Your task to perform on an android device: Go to accessibility settings Image 0: 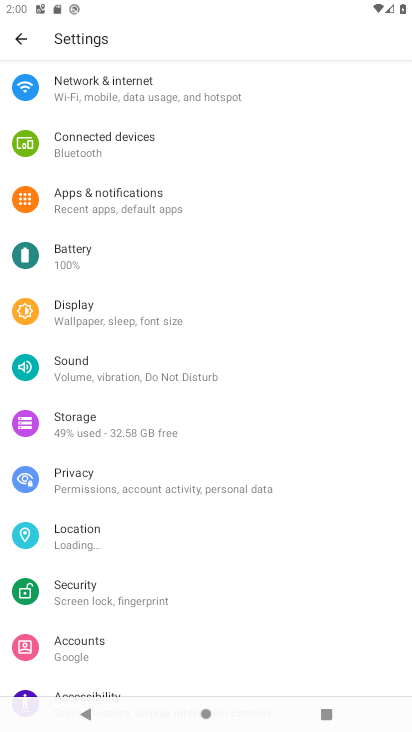
Step 0: press home button
Your task to perform on an android device: Go to accessibility settings Image 1: 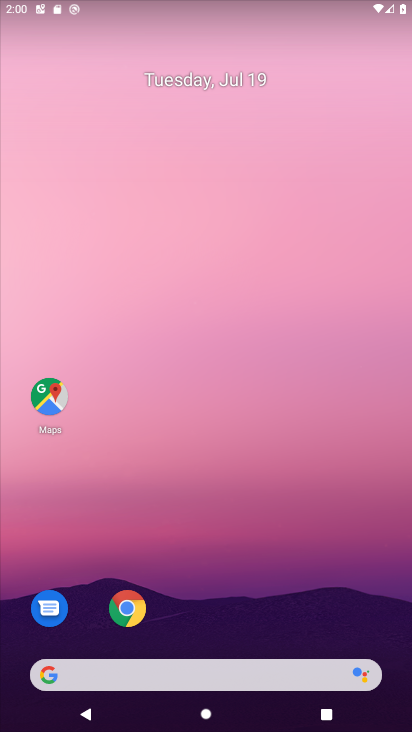
Step 1: drag from (186, 544) to (254, 98)
Your task to perform on an android device: Go to accessibility settings Image 2: 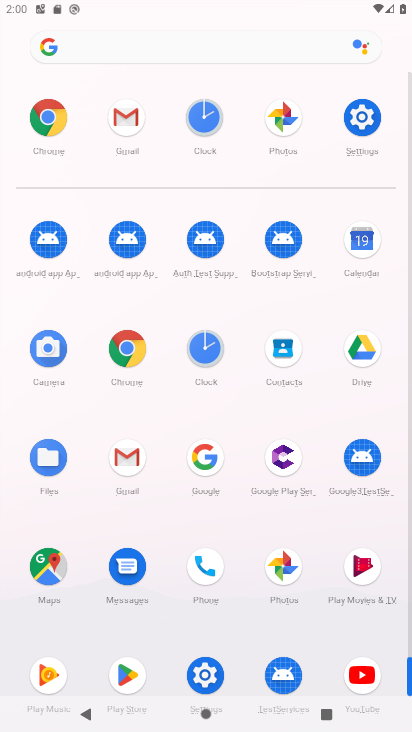
Step 2: click (205, 680)
Your task to perform on an android device: Go to accessibility settings Image 3: 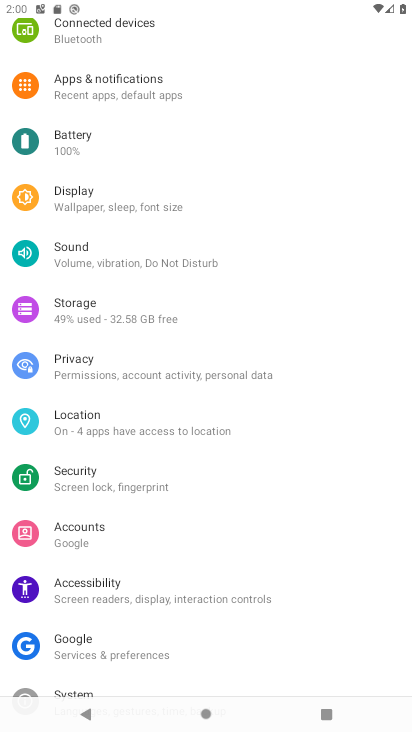
Step 3: click (173, 591)
Your task to perform on an android device: Go to accessibility settings Image 4: 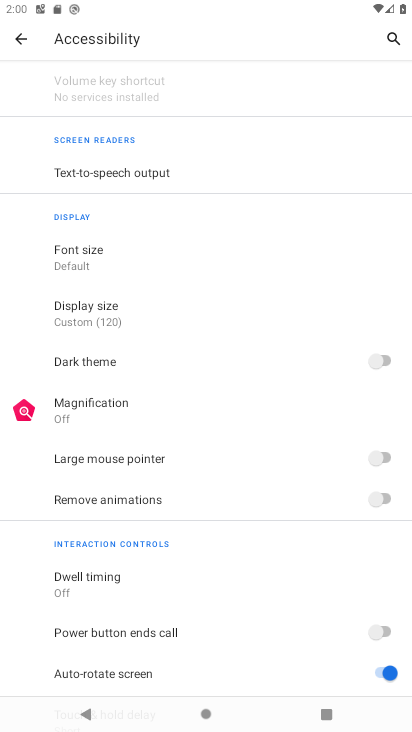
Step 4: task complete